Your task to perform on an android device: turn off translation in the chrome app Image 0: 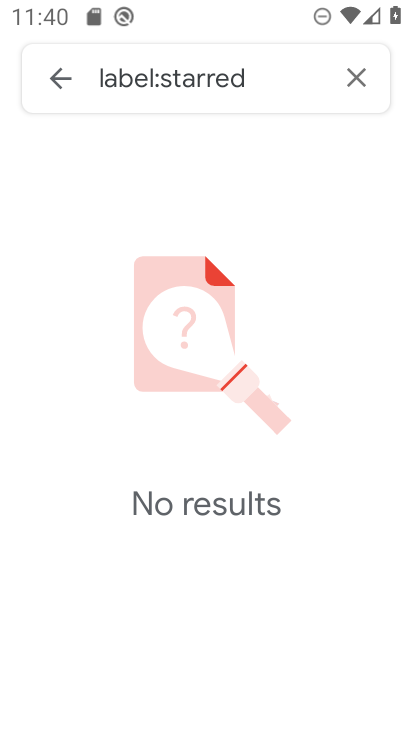
Step 0: press home button
Your task to perform on an android device: turn off translation in the chrome app Image 1: 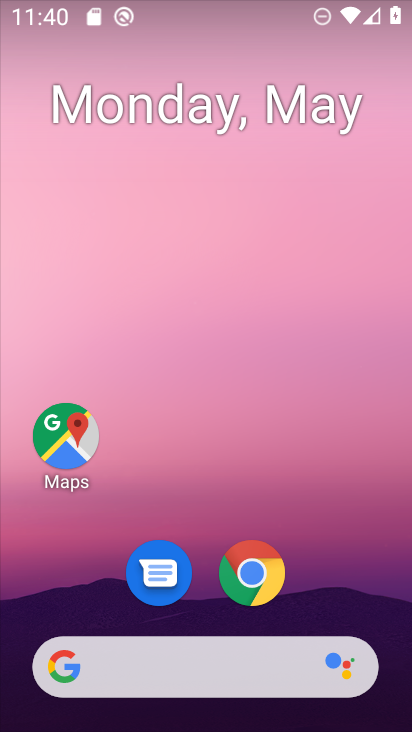
Step 1: drag from (337, 597) to (212, 44)
Your task to perform on an android device: turn off translation in the chrome app Image 2: 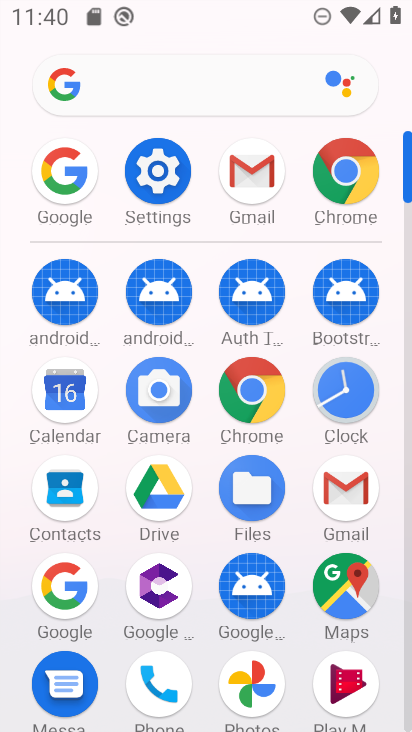
Step 2: click (340, 171)
Your task to perform on an android device: turn off translation in the chrome app Image 3: 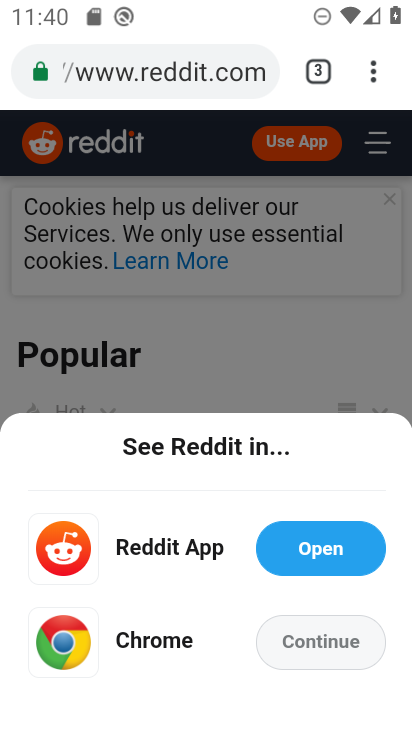
Step 3: click (372, 78)
Your task to perform on an android device: turn off translation in the chrome app Image 4: 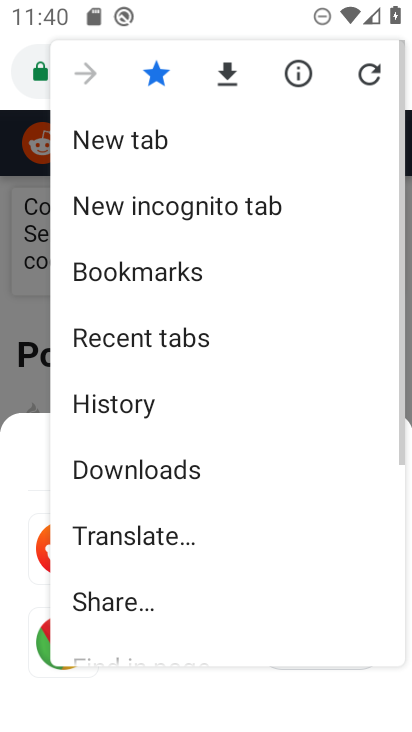
Step 4: drag from (220, 497) to (203, 123)
Your task to perform on an android device: turn off translation in the chrome app Image 5: 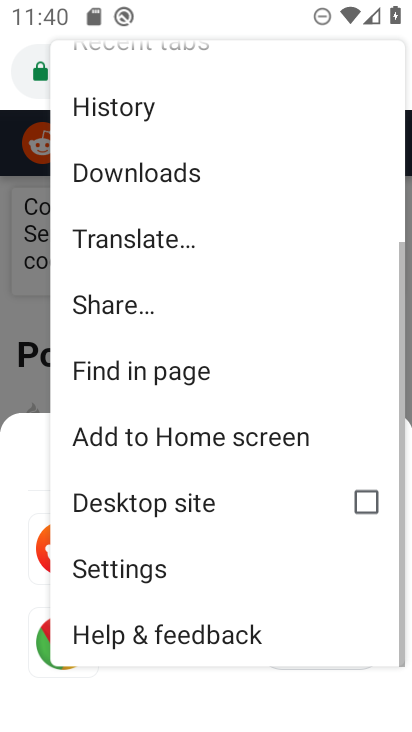
Step 5: click (183, 563)
Your task to perform on an android device: turn off translation in the chrome app Image 6: 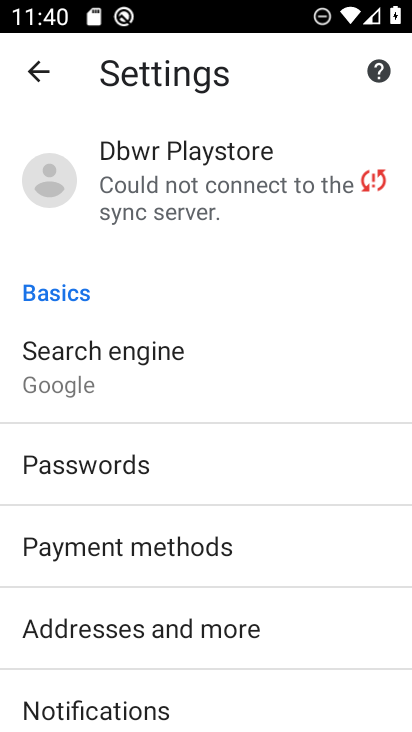
Step 6: drag from (167, 617) to (150, 200)
Your task to perform on an android device: turn off translation in the chrome app Image 7: 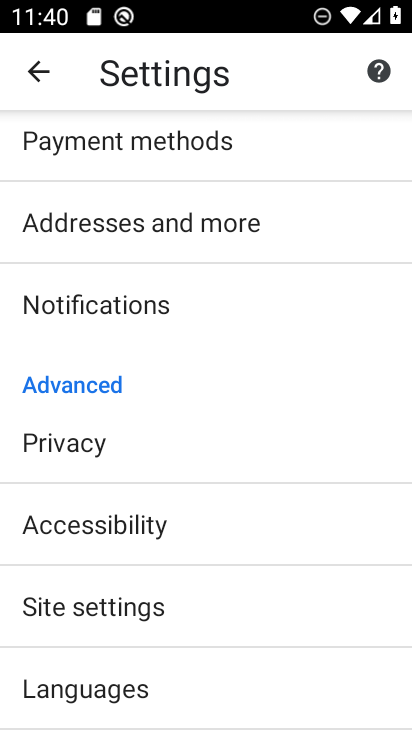
Step 7: click (124, 680)
Your task to perform on an android device: turn off translation in the chrome app Image 8: 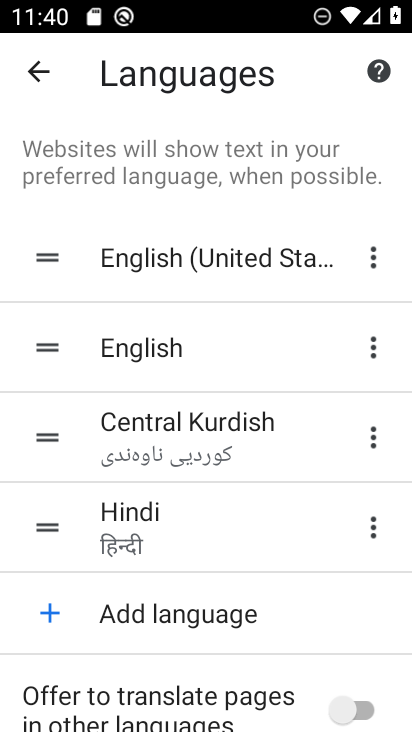
Step 8: task complete